Your task to perform on an android device: move a message to another label in the gmail app Image 0: 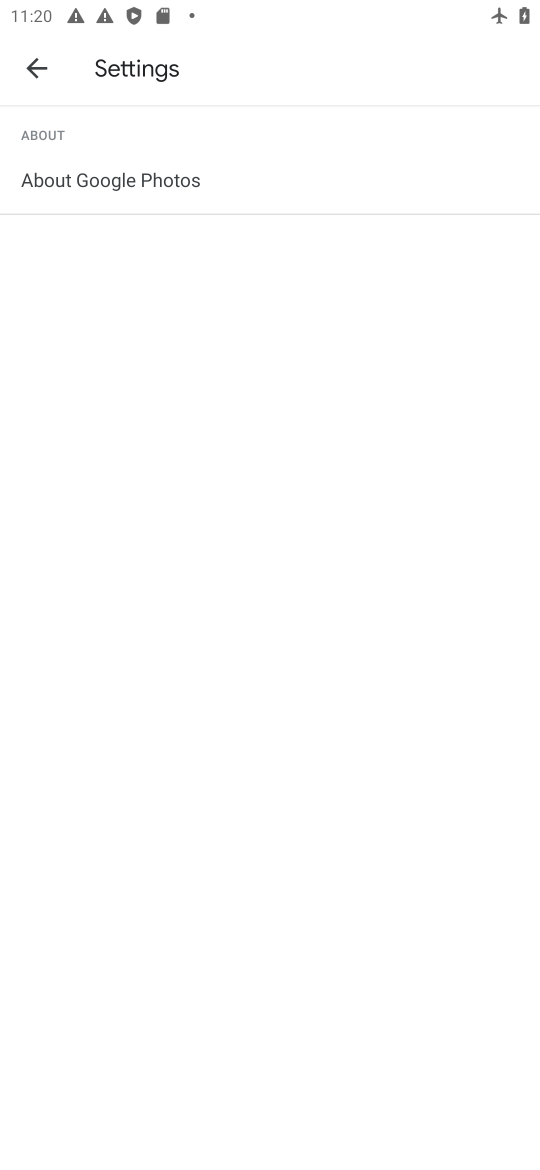
Step 0: press home button
Your task to perform on an android device: move a message to another label in the gmail app Image 1: 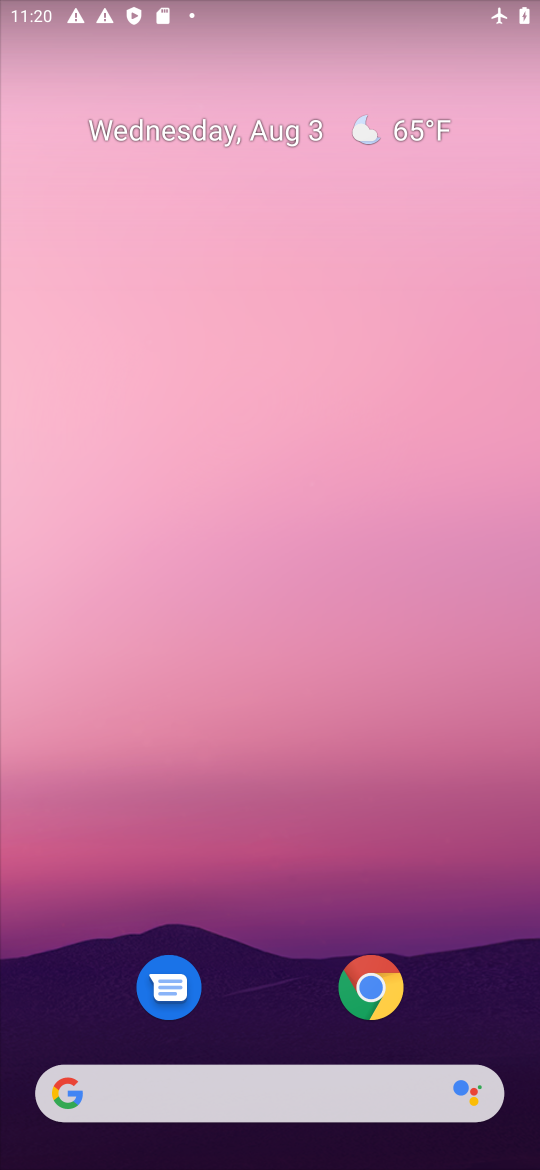
Step 1: drag from (202, 1079) to (165, 583)
Your task to perform on an android device: move a message to another label in the gmail app Image 2: 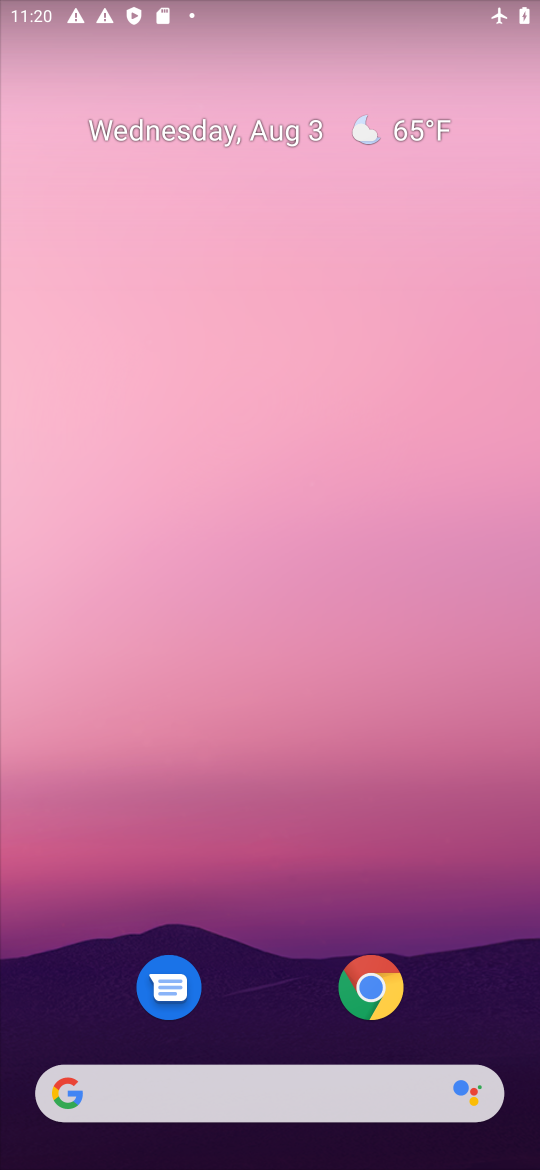
Step 2: drag from (247, 1006) to (208, 478)
Your task to perform on an android device: move a message to another label in the gmail app Image 3: 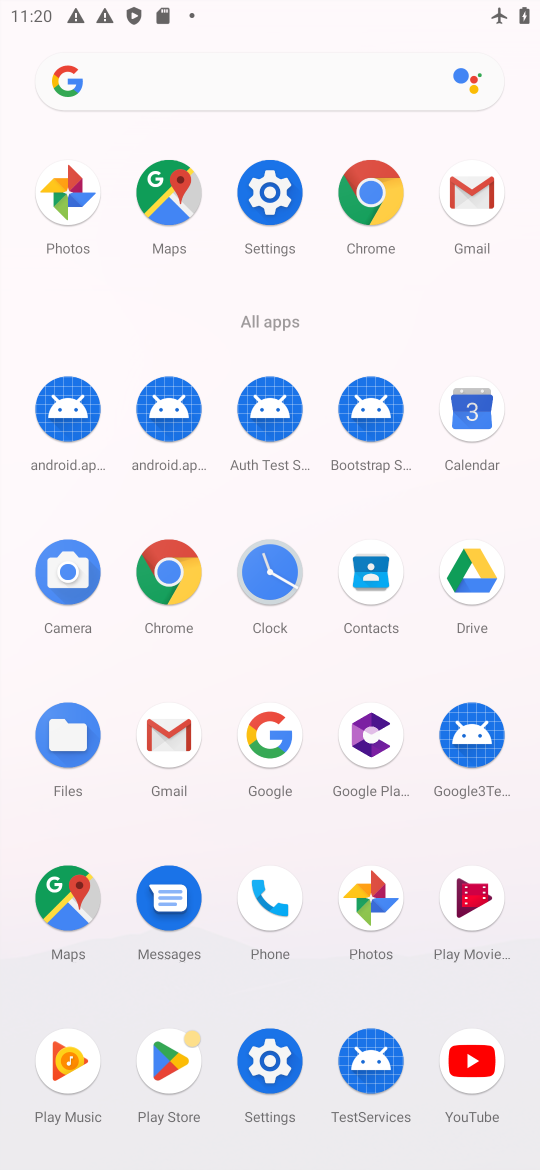
Step 3: click (153, 747)
Your task to perform on an android device: move a message to another label in the gmail app Image 4: 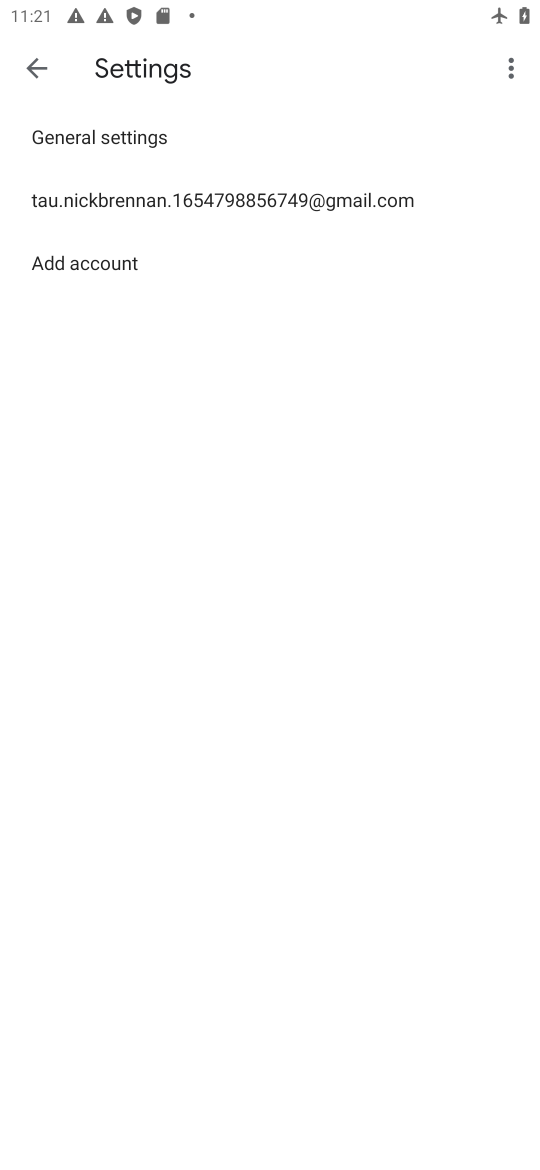
Step 4: click (34, 90)
Your task to perform on an android device: move a message to another label in the gmail app Image 5: 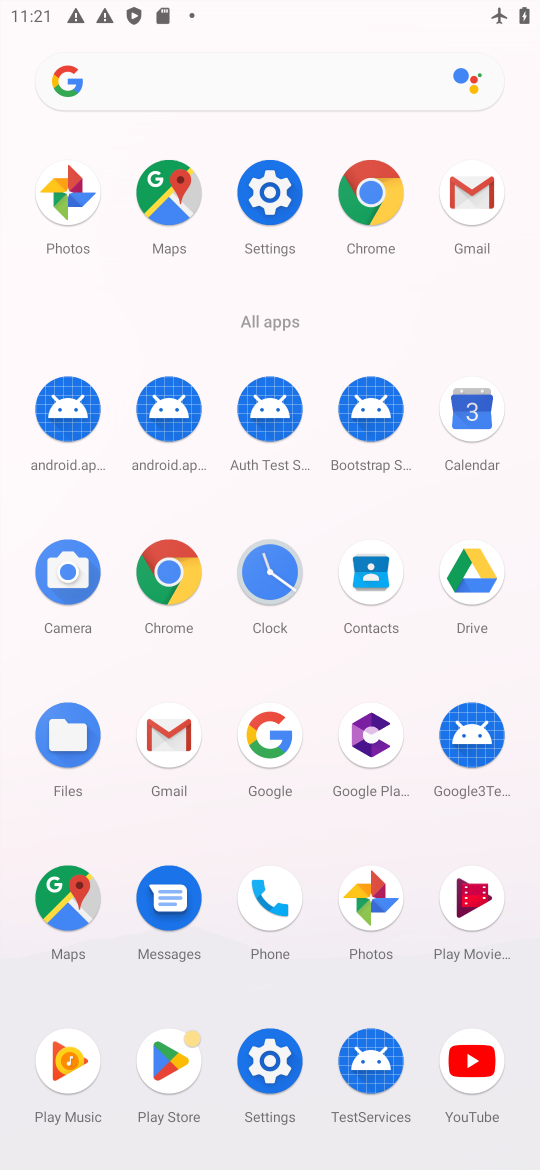
Step 5: click (456, 210)
Your task to perform on an android device: move a message to another label in the gmail app Image 6: 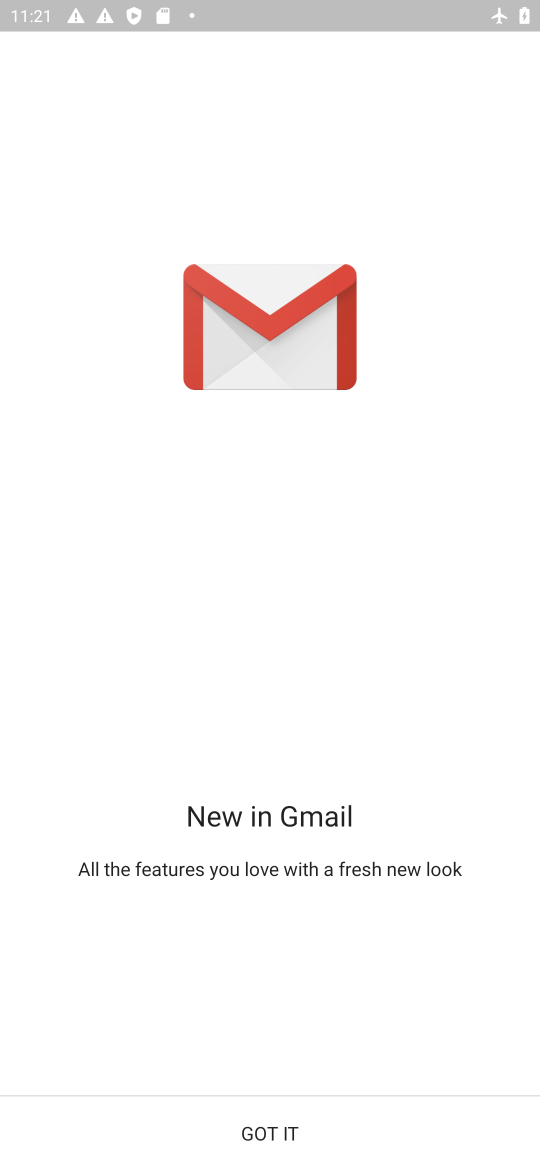
Step 6: click (228, 1146)
Your task to perform on an android device: move a message to another label in the gmail app Image 7: 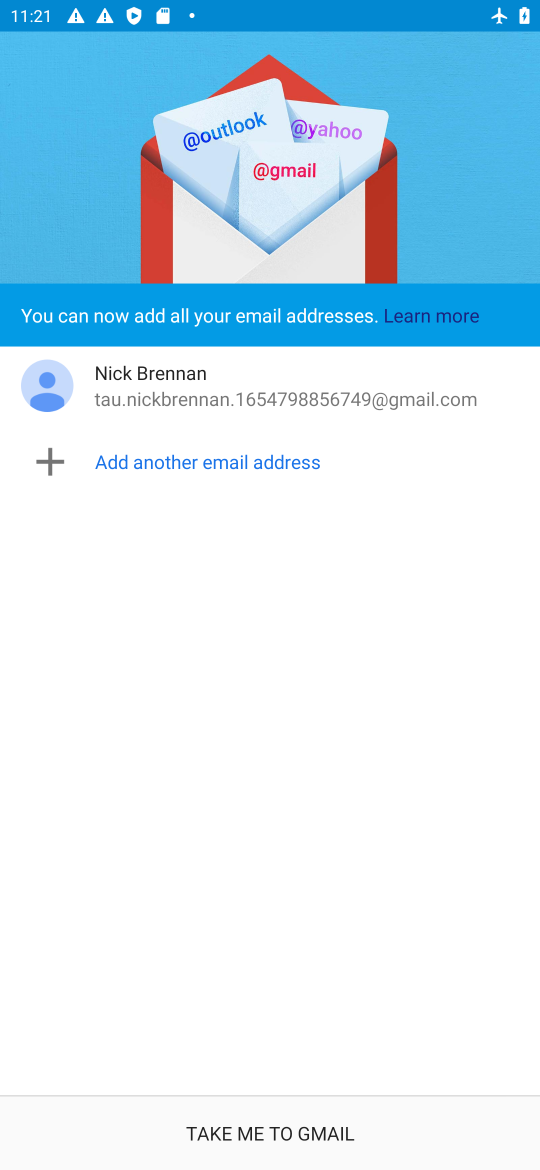
Step 7: click (228, 1146)
Your task to perform on an android device: move a message to another label in the gmail app Image 8: 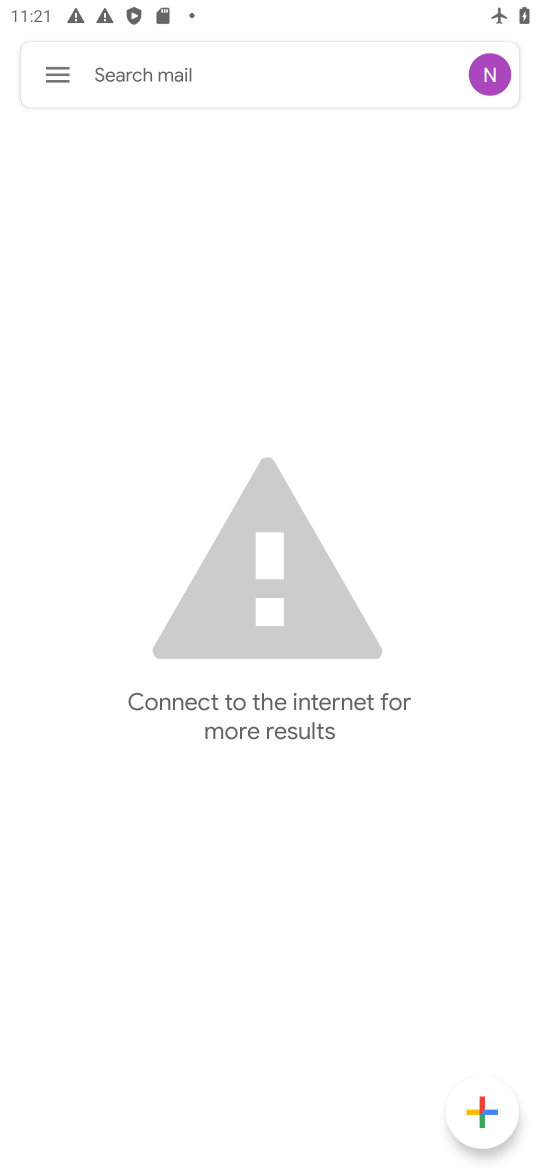
Step 8: task complete